Your task to perform on an android device: turn notification dots off Image 0: 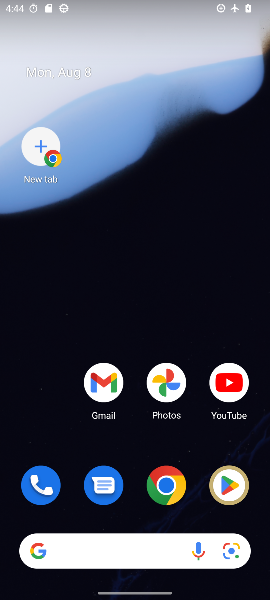
Step 0: click (107, 143)
Your task to perform on an android device: turn notification dots off Image 1: 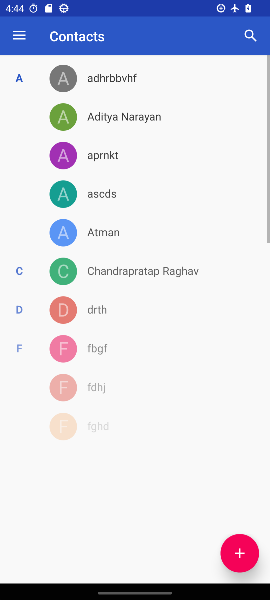
Step 1: click (120, 254)
Your task to perform on an android device: turn notification dots off Image 2: 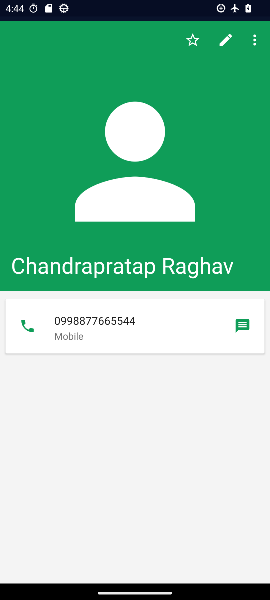
Step 2: press back button
Your task to perform on an android device: turn notification dots off Image 3: 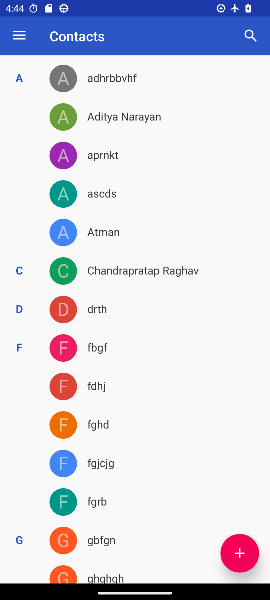
Step 3: press home button
Your task to perform on an android device: turn notification dots off Image 4: 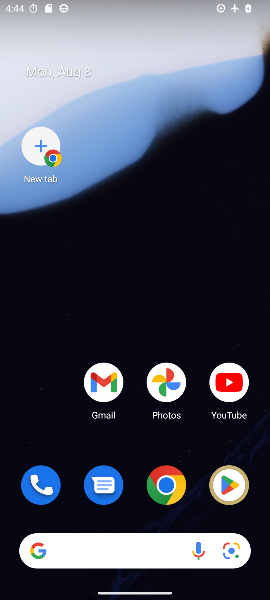
Step 4: drag from (127, 398) to (99, 130)
Your task to perform on an android device: turn notification dots off Image 5: 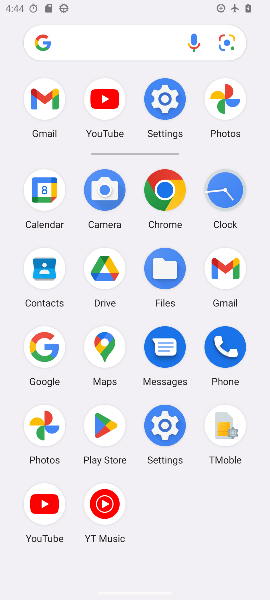
Step 5: drag from (118, 324) to (110, 117)
Your task to perform on an android device: turn notification dots off Image 6: 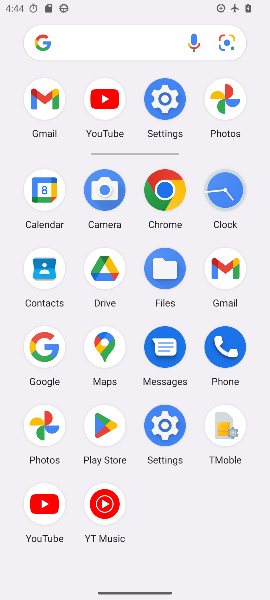
Step 6: click (150, 417)
Your task to perform on an android device: turn notification dots off Image 7: 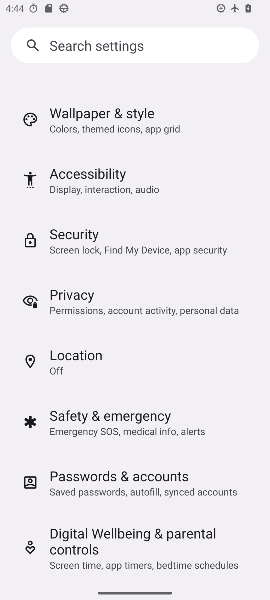
Step 7: drag from (79, 157) to (83, 126)
Your task to perform on an android device: turn notification dots off Image 8: 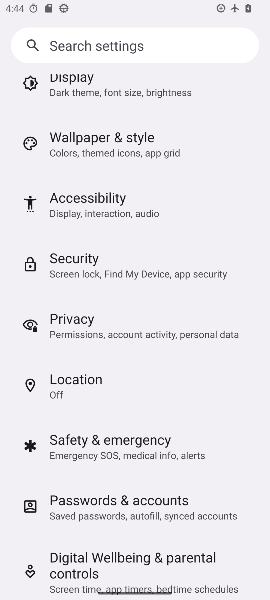
Step 8: drag from (115, 327) to (111, 140)
Your task to perform on an android device: turn notification dots off Image 9: 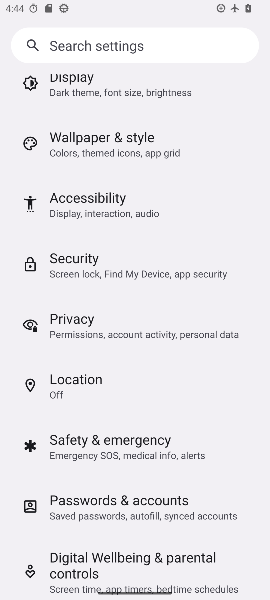
Step 9: drag from (127, 410) to (122, 109)
Your task to perform on an android device: turn notification dots off Image 10: 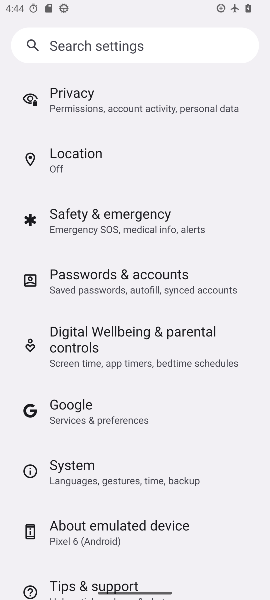
Step 10: drag from (118, 379) to (110, 117)
Your task to perform on an android device: turn notification dots off Image 11: 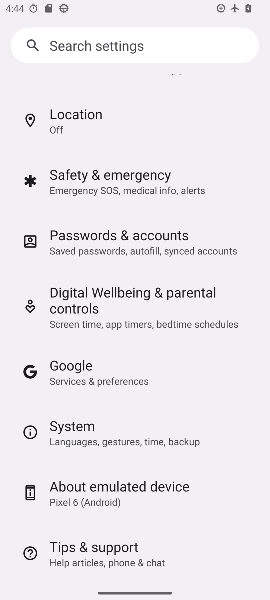
Step 11: drag from (87, 173) to (124, 489)
Your task to perform on an android device: turn notification dots off Image 12: 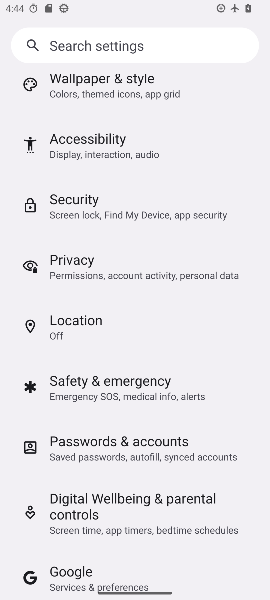
Step 12: drag from (49, 217) to (105, 509)
Your task to perform on an android device: turn notification dots off Image 13: 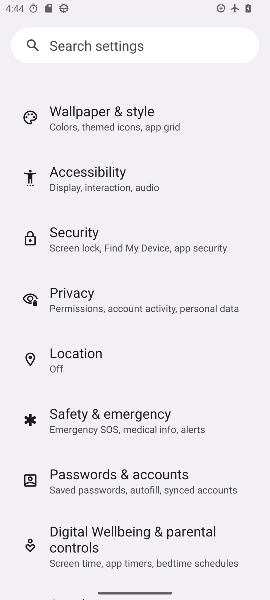
Step 13: drag from (75, 193) to (106, 410)
Your task to perform on an android device: turn notification dots off Image 14: 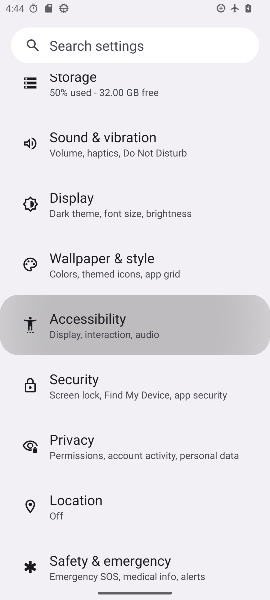
Step 14: drag from (108, 137) to (153, 392)
Your task to perform on an android device: turn notification dots off Image 15: 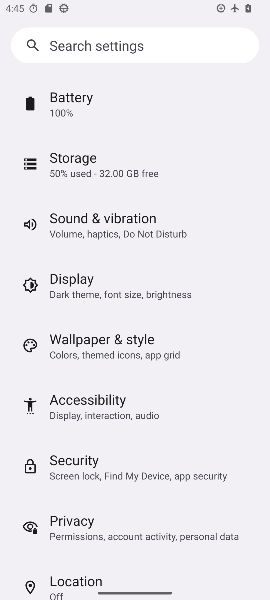
Step 15: drag from (74, 204) to (73, 384)
Your task to perform on an android device: turn notification dots off Image 16: 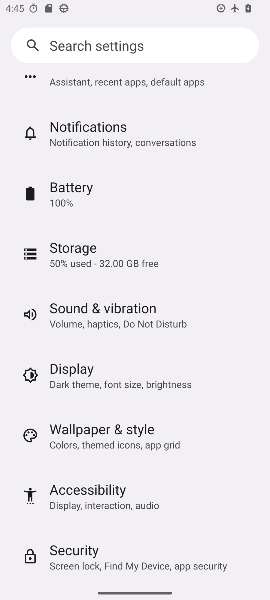
Step 16: click (102, 463)
Your task to perform on an android device: turn notification dots off Image 17: 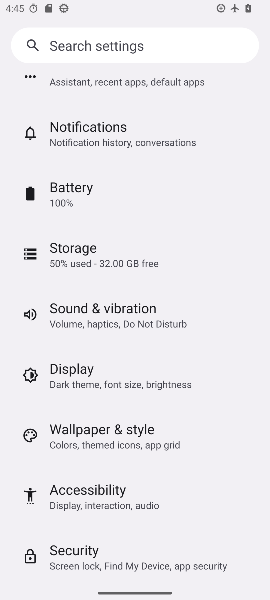
Step 17: drag from (102, 254) to (109, 491)
Your task to perform on an android device: turn notification dots off Image 18: 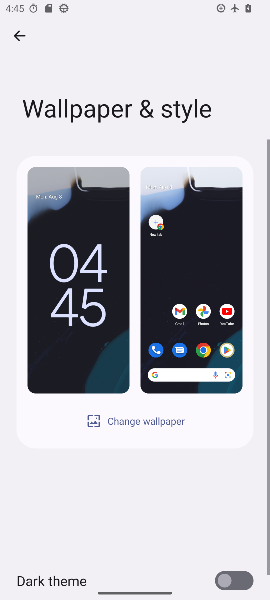
Step 18: click (21, 32)
Your task to perform on an android device: turn notification dots off Image 19: 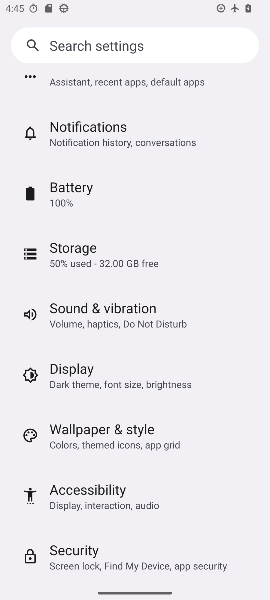
Step 19: click (97, 133)
Your task to perform on an android device: turn notification dots off Image 20: 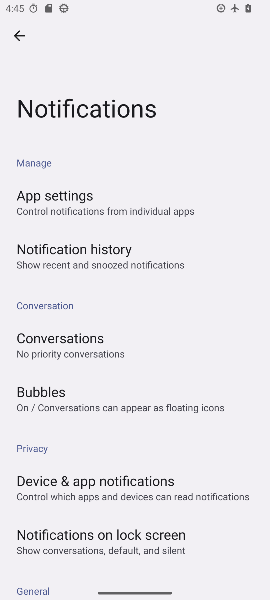
Step 20: drag from (91, 70) to (118, 182)
Your task to perform on an android device: turn notification dots off Image 21: 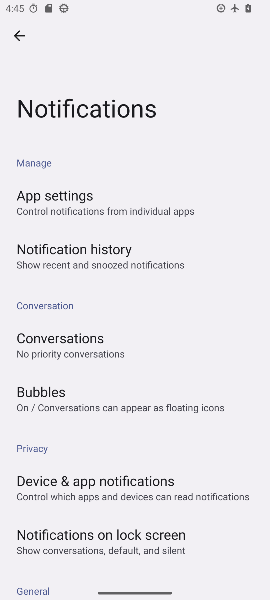
Step 21: drag from (130, 482) to (179, 217)
Your task to perform on an android device: turn notification dots off Image 22: 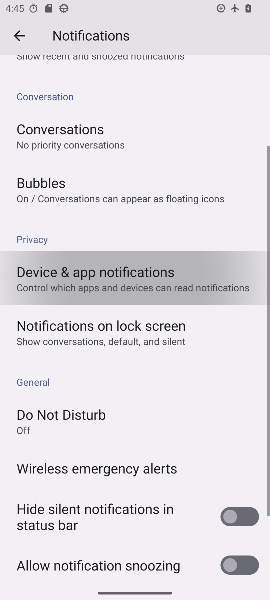
Step 22: drag from (178, 305) to (174, 134)
Your task to perform on an android device: turn notification dots off Image 23: 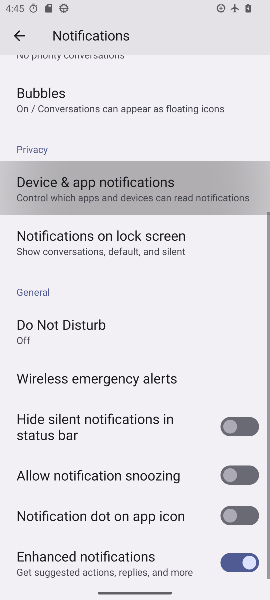
Step 23: click (140, 78)
Your task to perform on an android device: turn notification dots off Image 24: 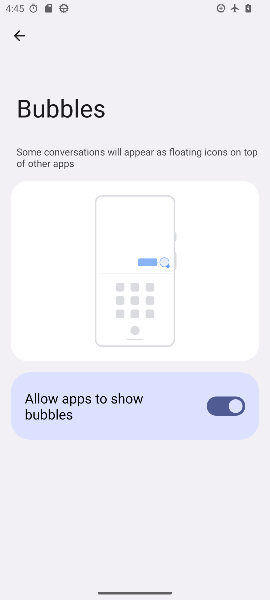
Step 24: click (25, 36)
Your task to perform on an android device: turn notification dots off Image 25: 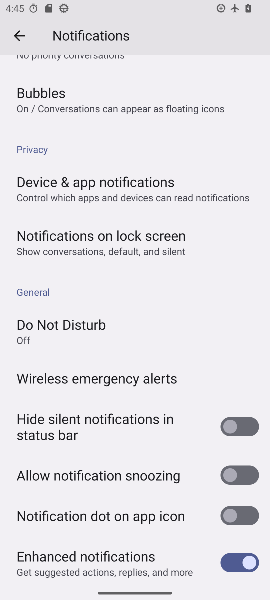
Step 25: task complete